Your task to perform on an android device: Go to eBay Image 0: 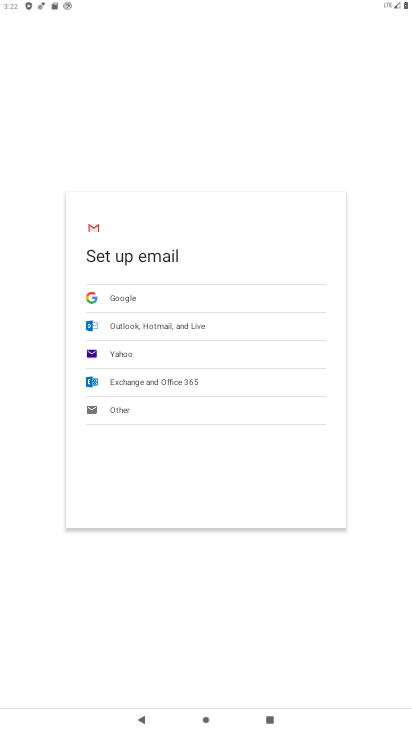
Step 0: press home button
Your task to perform on an android device: Go to eBay Image 1: 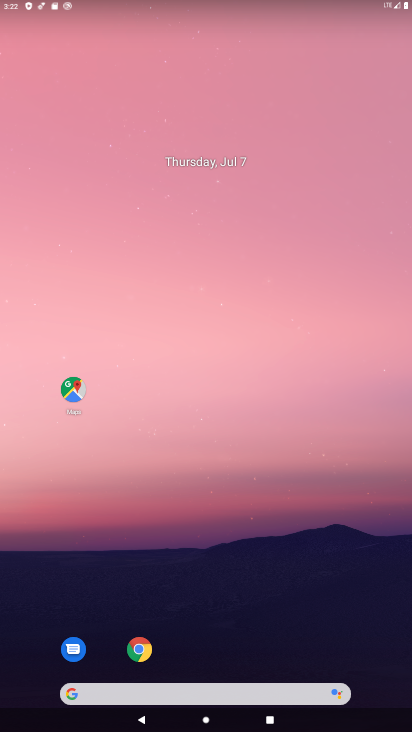
Step 1: drag from (291, 626) to (293, 296)
Your task to perform on an android device: Go to eBay Image 2: 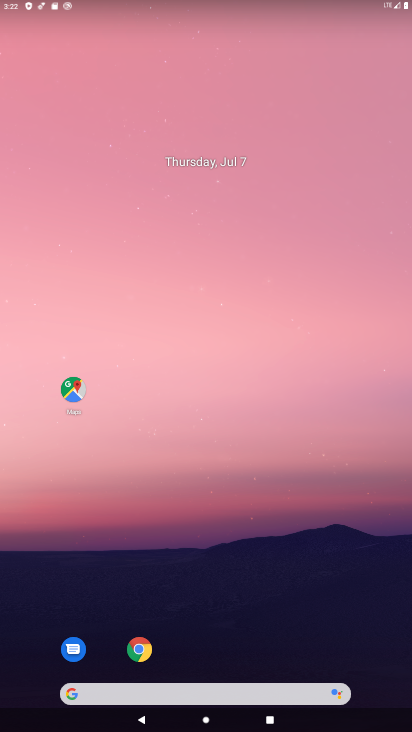
Step 2: click (140, 663)
Your task to perform on an android device: Go to eBay Image 3: 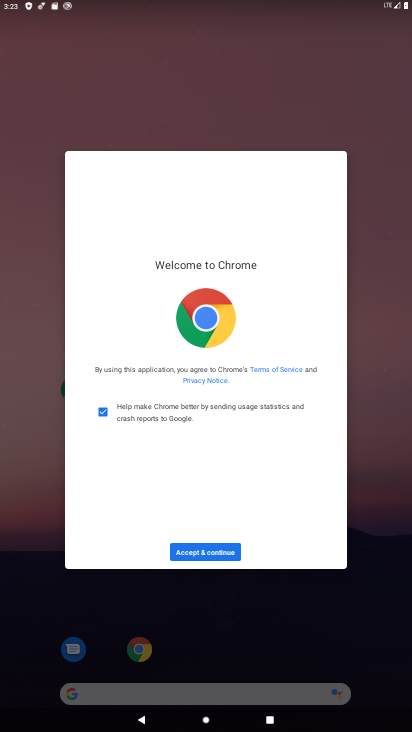
Step 3: click (206, 554)
Your task to perform on an android device: Go to eBay Image 4: 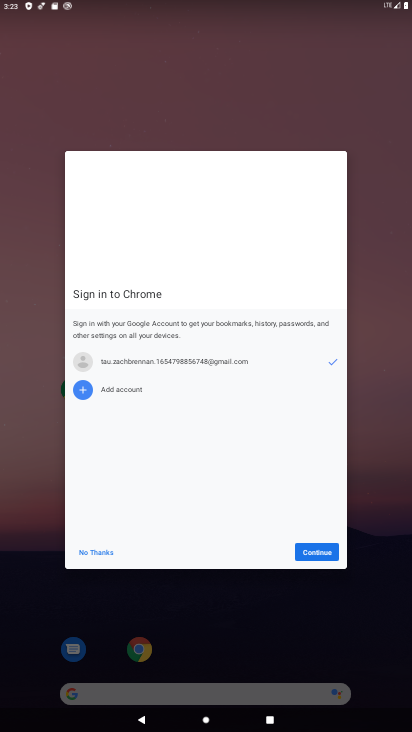
Step 4: click (297, 562)
Your task to perform on an android device: Go to eBay Image 5: 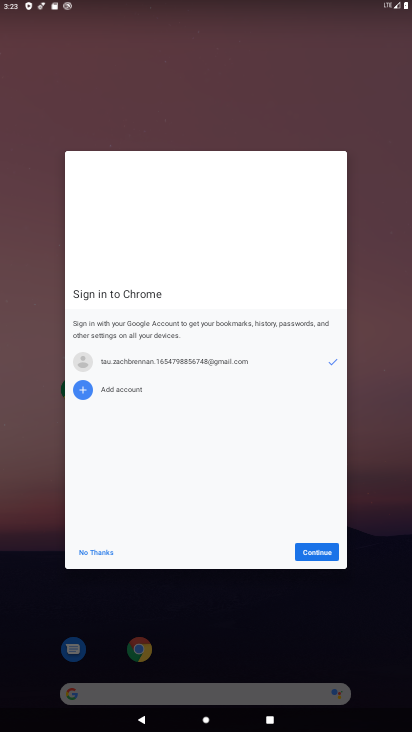
Step 5: click (323, 552)
Your task to perform on an android device: Go to eBay Image 6: 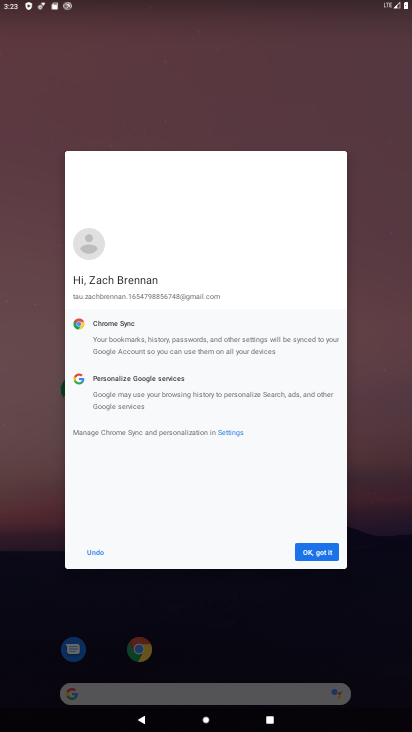
Step 6: click (323, 552)
Your task to perform on an android device: Go to eBay Image 7: 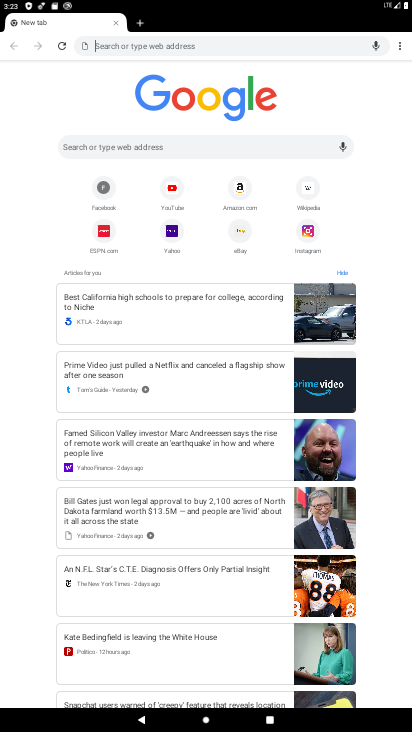
Step 7: click (243, 236)
Your task to perform on an android device: Go to eBay Image 8: 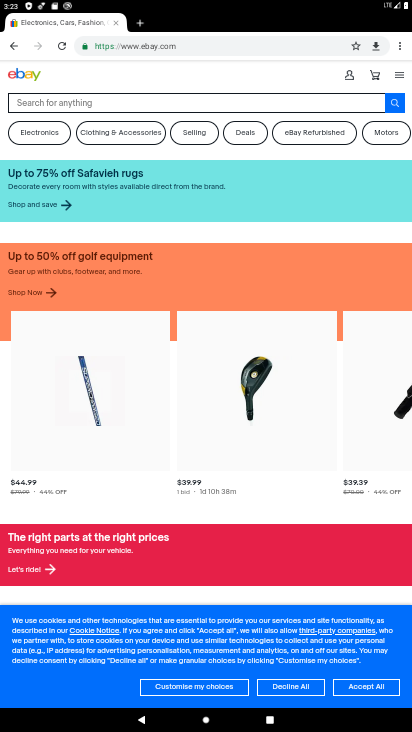
Step 8: task complete